Your task to perform on an android device: Open internet settings Image 0: 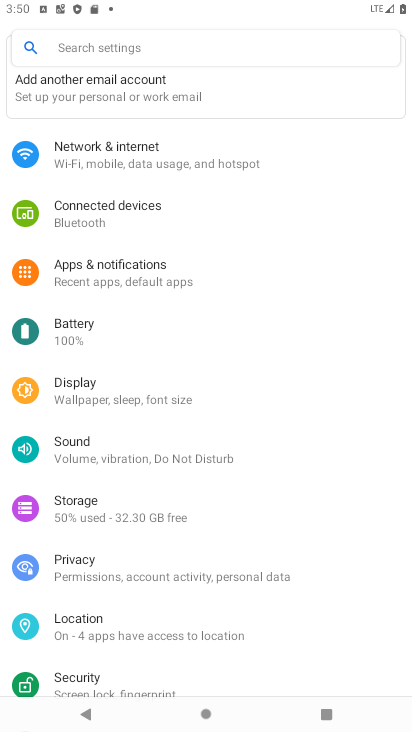
Step 0: click (103, 148)
Your task to perform on an android device: Open internet settings Image 1: 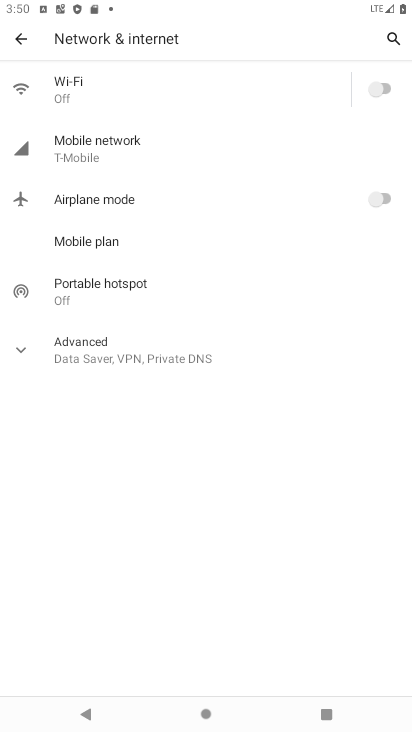
Step 1: click (75, 143)
Your task to perform on an android device: Open internet settings Image 2: 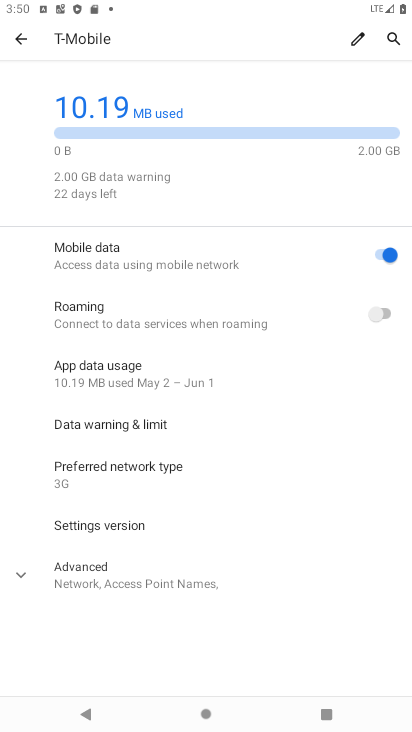
Step 2: click (21, 572)
Your task to perform on an android device: Open internet settings Image 3: 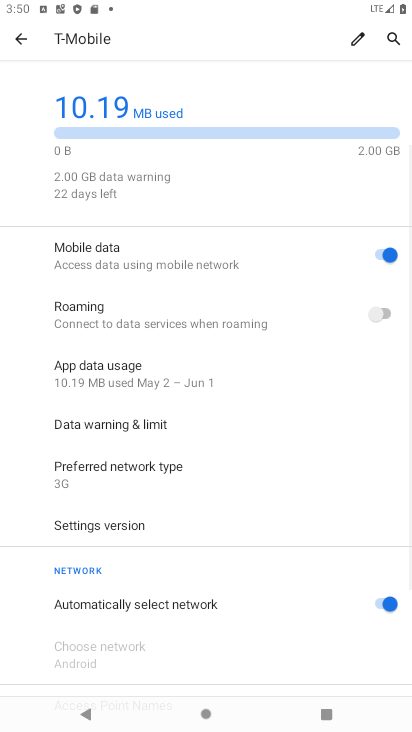
Step 3: task complete